Your task to perform on an android device: empty trash in the gmail app Image 0: 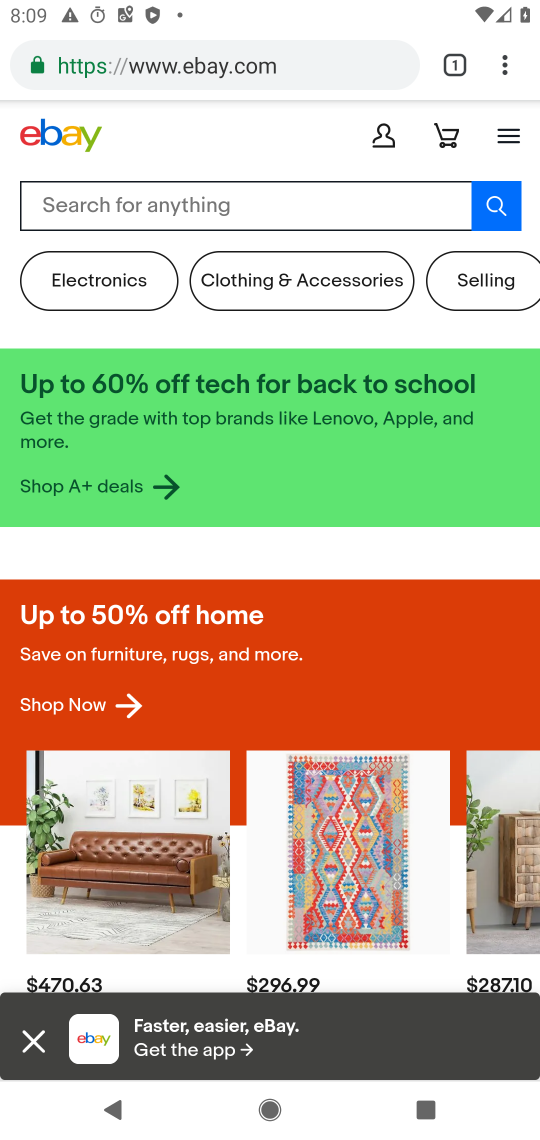
Step 0: press home button
Your task to perform on an android device: empty trash in the gmail app Image 1: 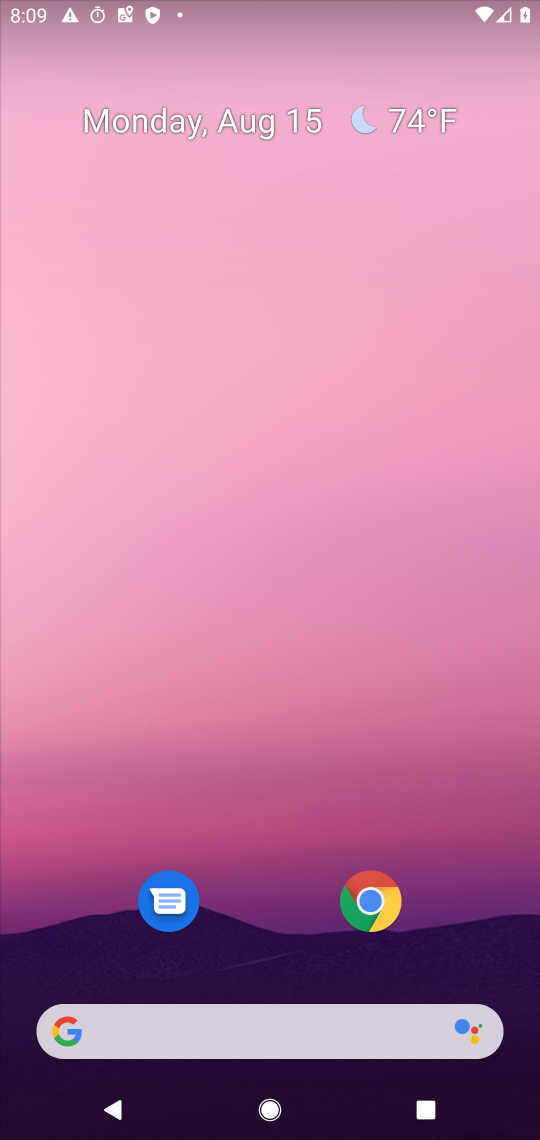
Step 1: drag from (231, 595) to (218, 0)
Your task to perform on an android device: empty trash in the gmail app Image 2: 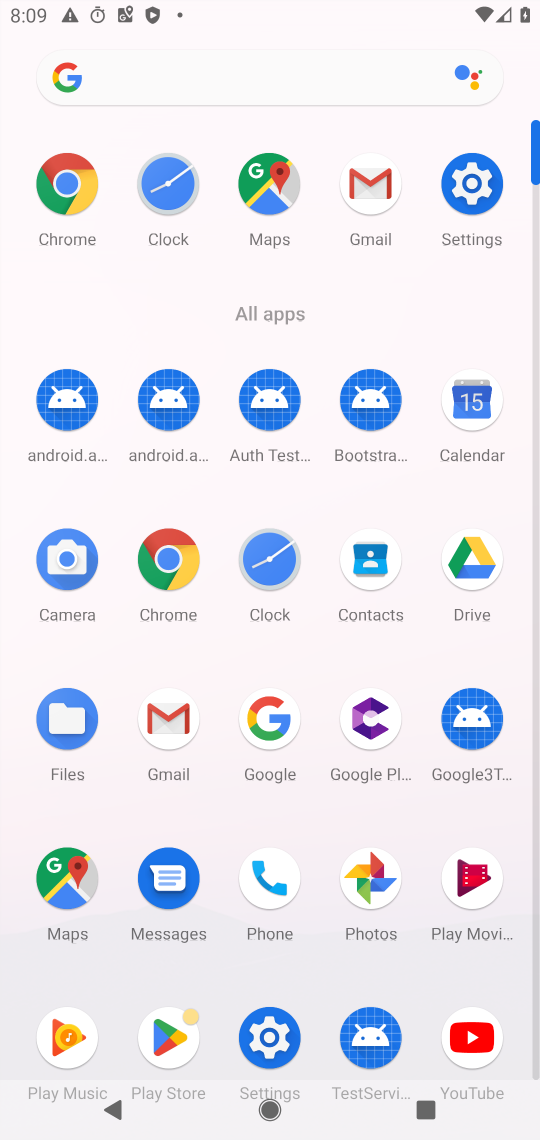
Step 2: click (168, 727)
Your task to perform on an android device: empty trash in the gmail app Image 3: 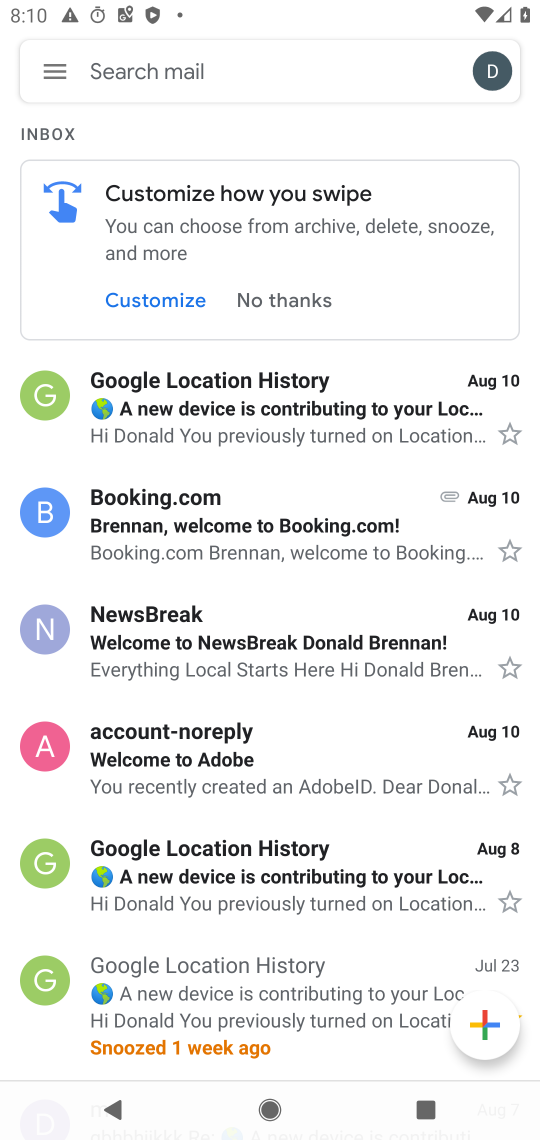
Step 3: click (43, 62)
Your task to perform on an android device: empty trash in the gmail app Image 4: 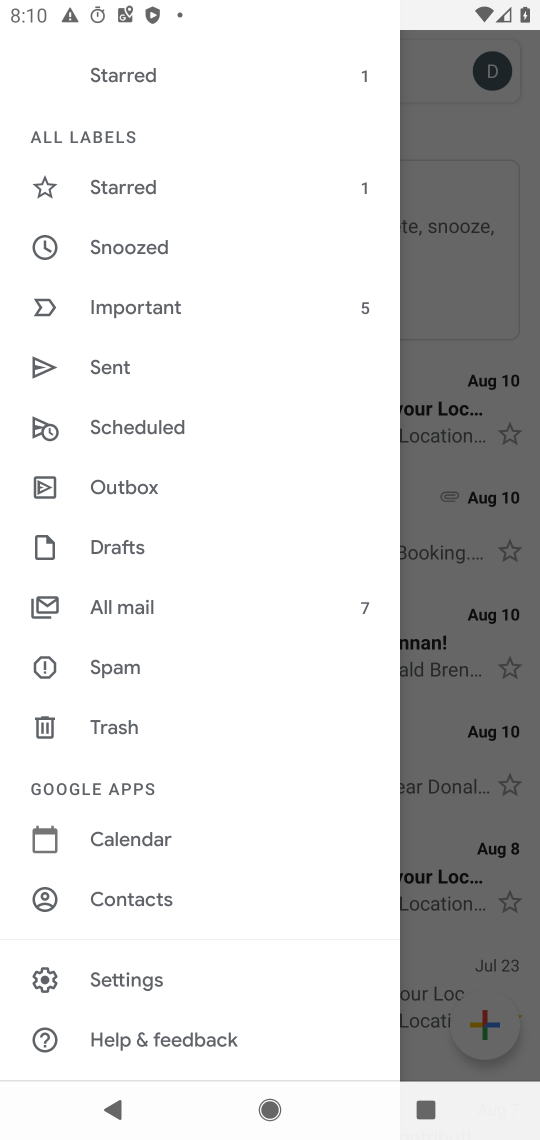
Step 4: click (130, 731)
Your task to perform on an android device: empty trash in the gmail app Image 5: 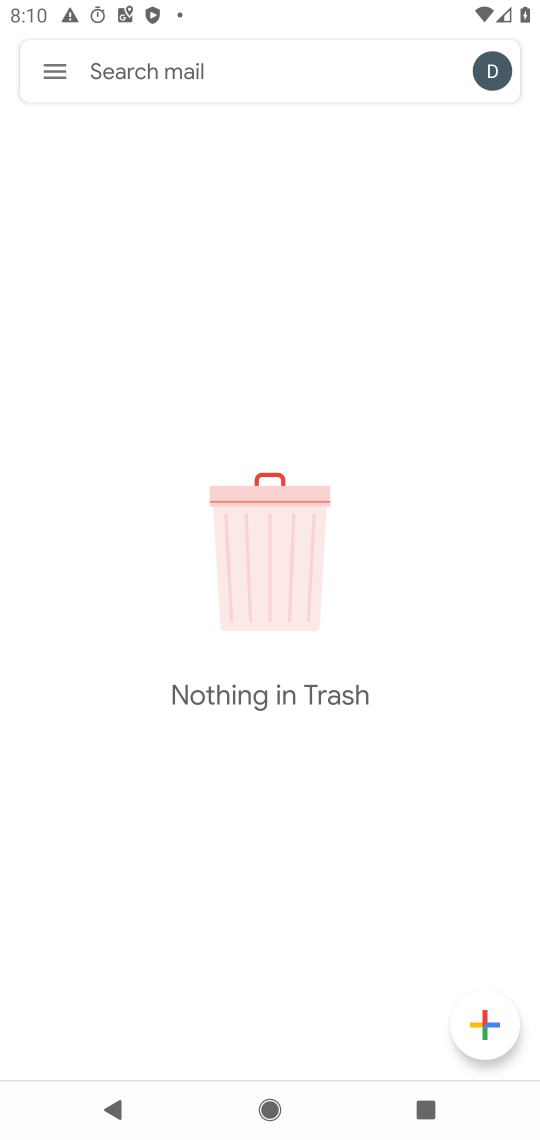
Step 5: task complete